Your task to perform on an android device: change the upload size in google photos Image 0: 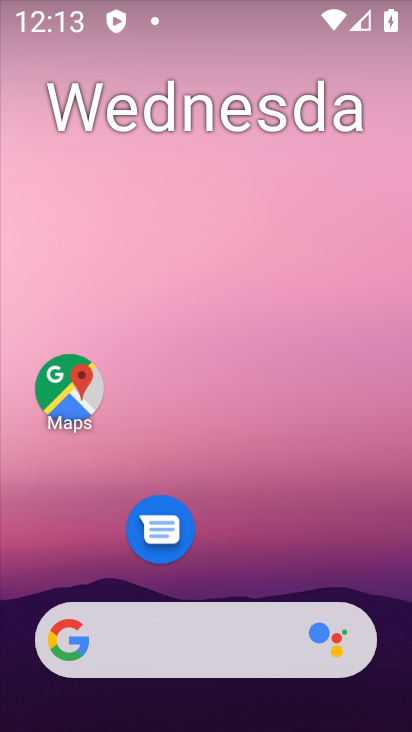
Step 0: drag from (212, 589) to (302, 25)
Your task to perform on an android device: change the upload size in google photos Image 1: 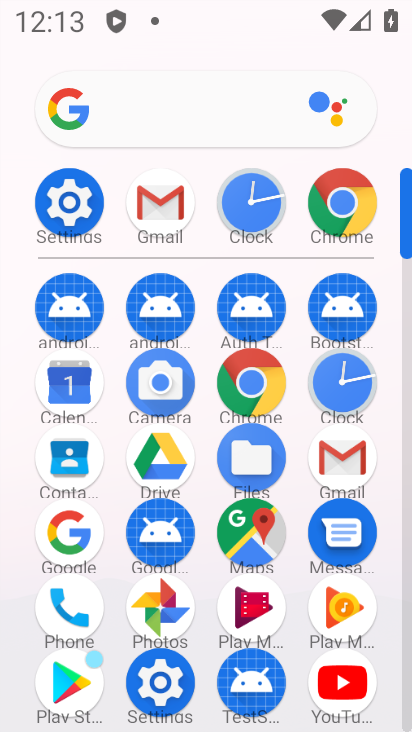
Step 1: click (154, 600)
Your task to perform on an android device: change the upload size in google photos Image 2: 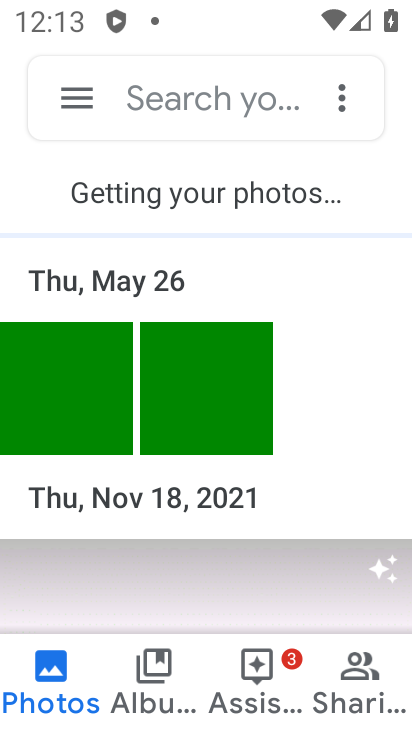
Step 2: click (63, 112)
Your task to perform on an android device: change the upload size in google photos Image 3: 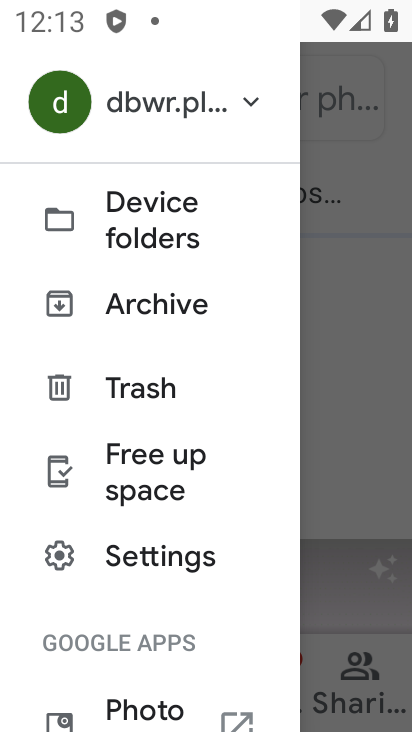
Step 3: click (146, 554)
Your task to perform on an android device: change the upload size in google photos Image 4: 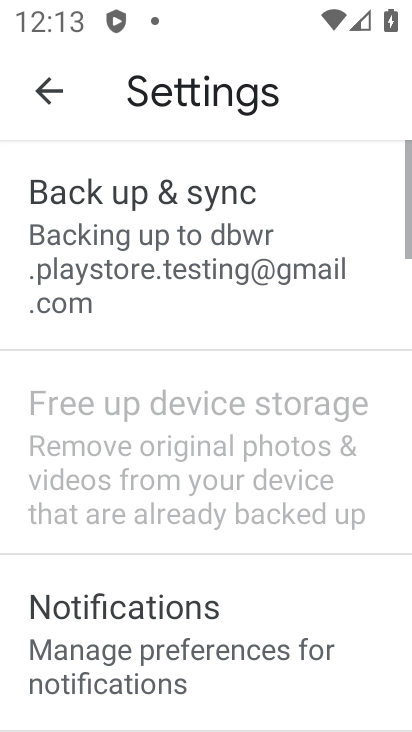
Step 4: drag from (154, 553) to (139, 393)
Your task to perform on an android device: change the upload size in google photos Image 5: 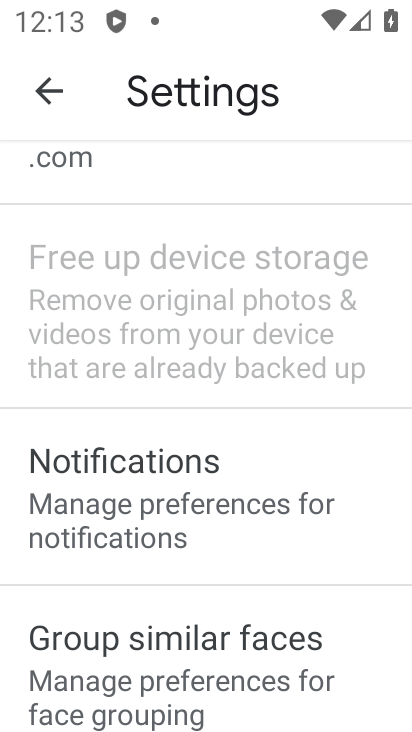
Step 5: click (171, 176)
Your task to perform on an android device: change the upload size in google photos Image 6: 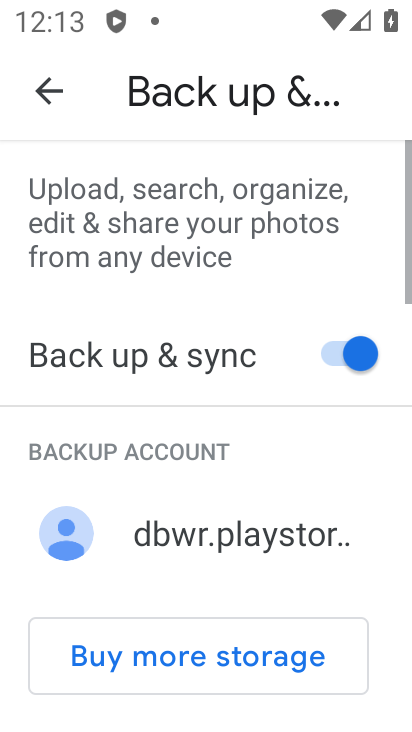
Step 6: drag from (172, 578) to (150, 116)
Your task to perform on an android device: change the upload size in google photos Image 7: 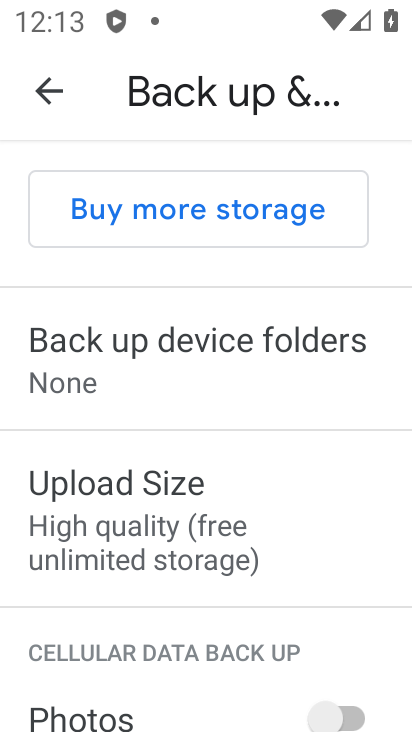
Step 7: click (169, 481)
Your task to perform on an android device: change the upload size in google photos Image 8: 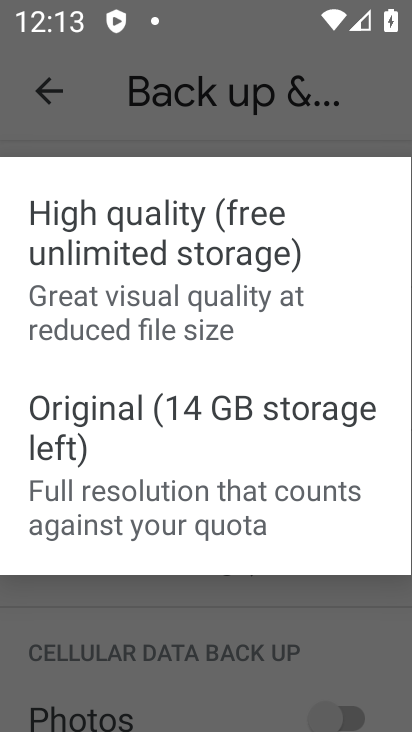
Step 8: click (178, 449)
Your task to perform on an android device: change the upload size in google photos Image 9: 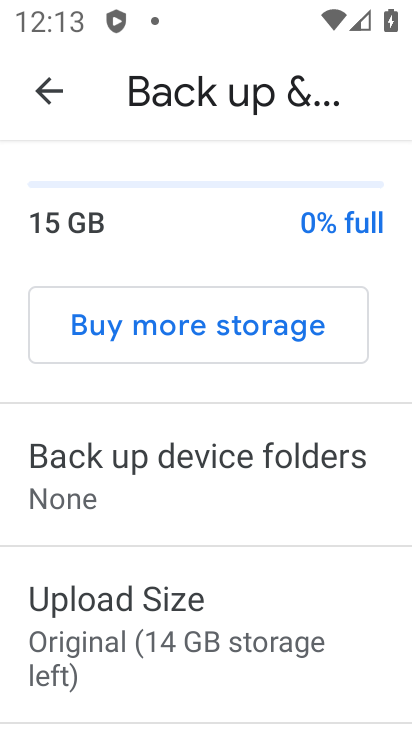
Step 9: task complete